Your task to perform on an android device: Is it going to rain this weekend? Image 0: 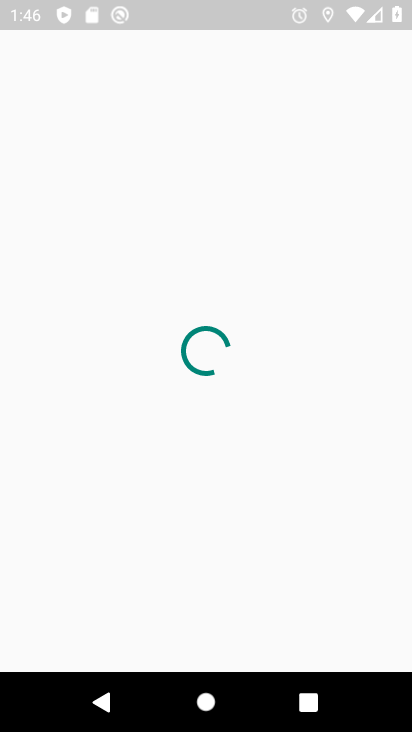
Step 0: press home button
Your task to perform on an android device: Is it going to rain this weekend? Image 1: 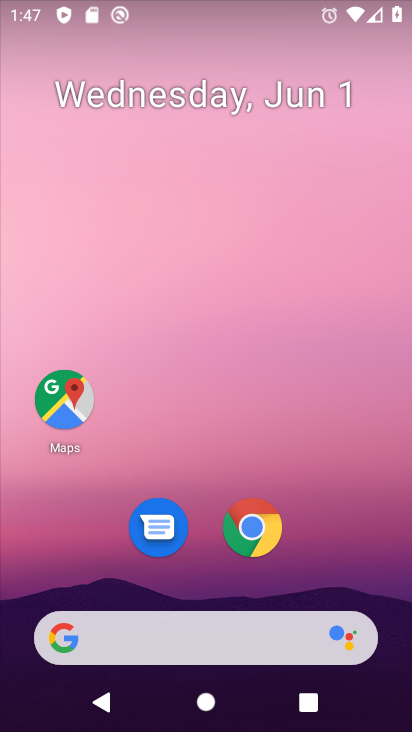
Step 1: click (248, 542)
Your task to perform on an android device: Is it going to rain this weekend? Image 2: 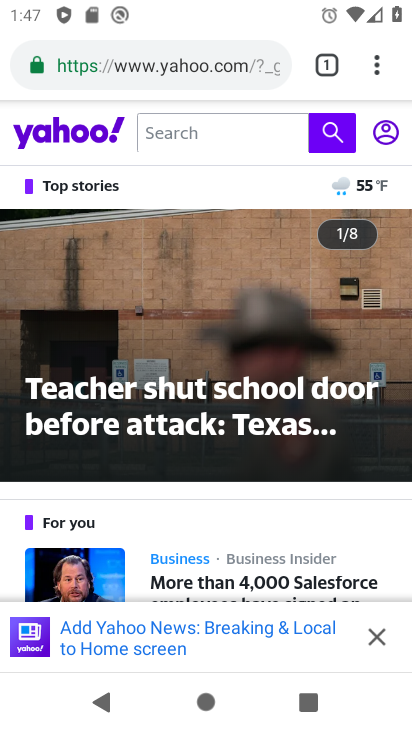
Step 2: click (258, 62)
Your task to perform on an android device: Is it going to rain this weekend? Image 3: 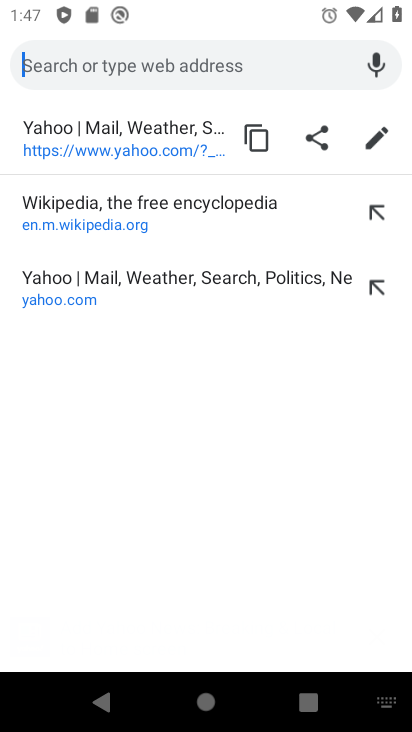
Step 3: type "Is it going to rain this weekend?"
Your task to perform on an android device: Is it going to rain this weekend? Image 4: 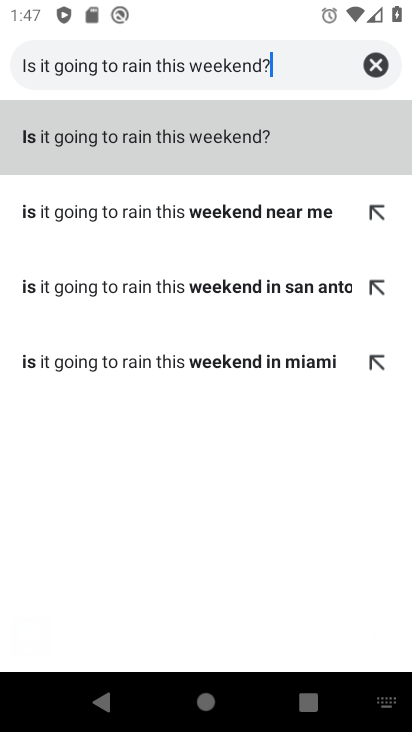
Step 4: click (233, 141)
Your task to perform on an android device: Is it going to rain this weekend? Image 5: 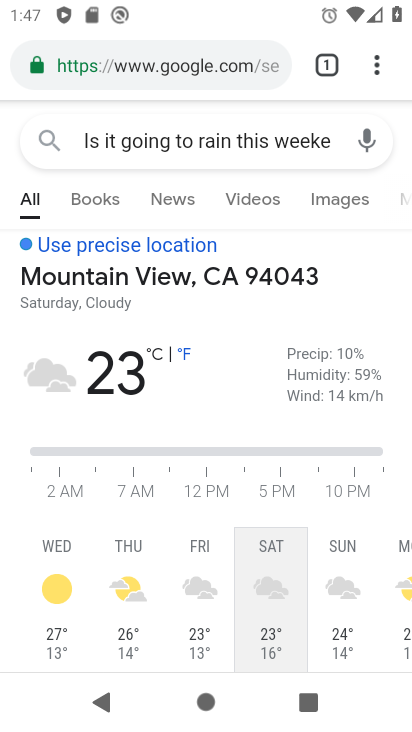
Step 5: task complete